Your task to perform on an android device: Open eBay Image 0: 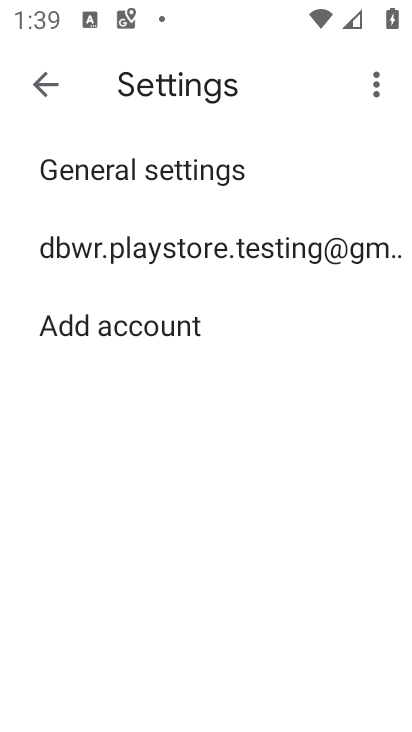
Step 0: press home button
Your task to perform on an android device: Open eBay Image 1: 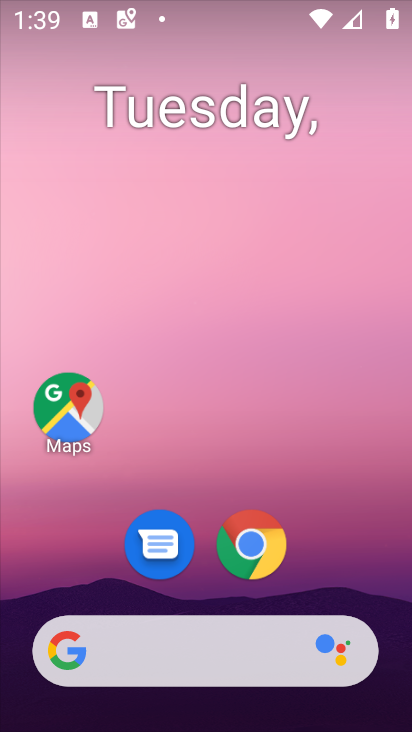
Step 1: click (256, 546)
Your task to perform on an android device: Open eBay Image 2: 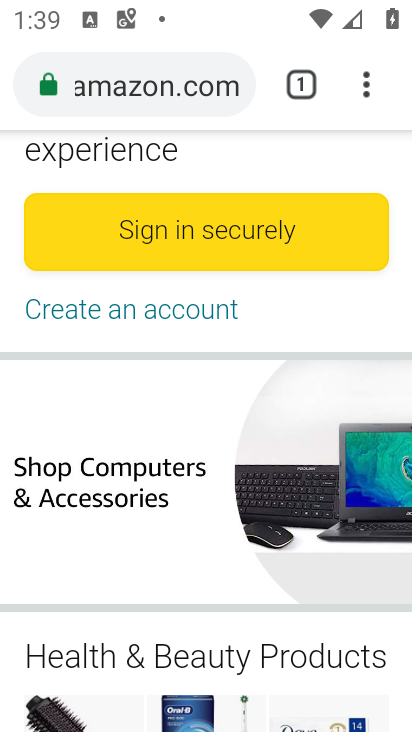
Step 2: click (242, 87)
Your task to perform on an android device: Open eBay Image 3: 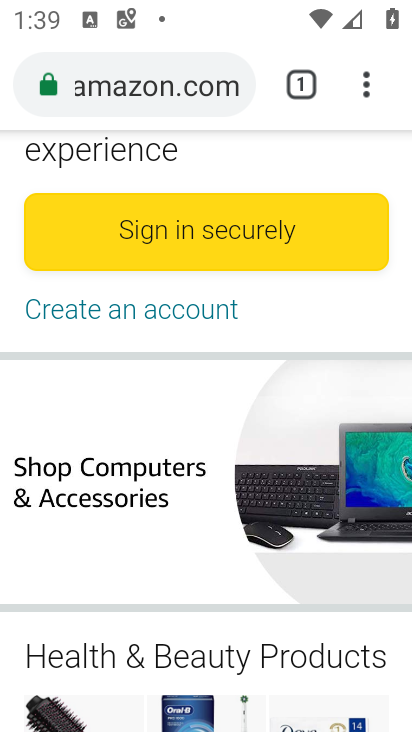
Step 3: click (173, 68)
Your task to perform on an android device: Open eBay Image 4: 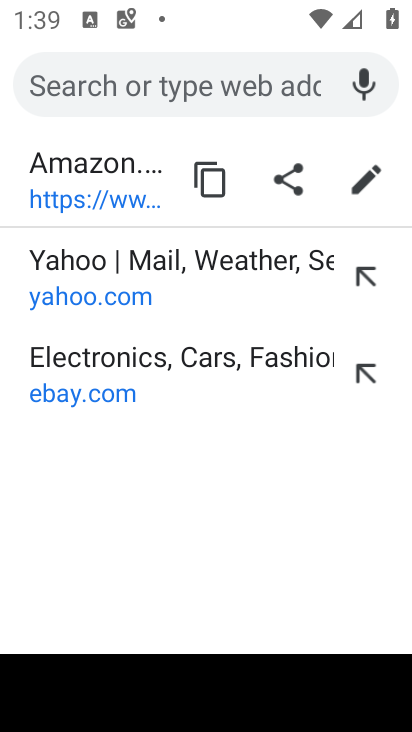
Step 4: type "ebay"
Your task to perform on an android device: Open eBay Image 5: 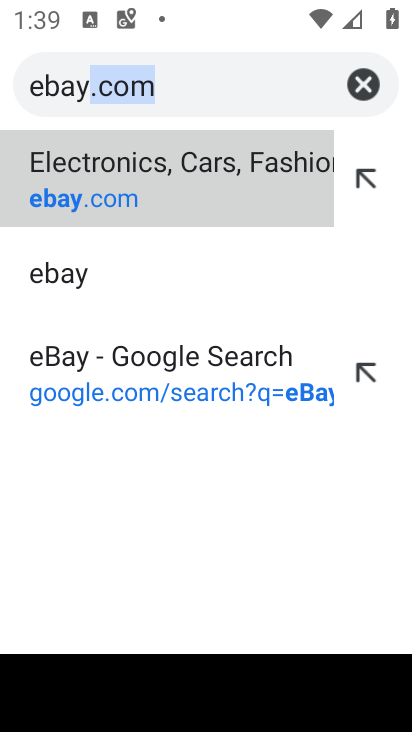
Step 5: click (104, 164)
Your task to perform on an android device: Open eBay Image 6: 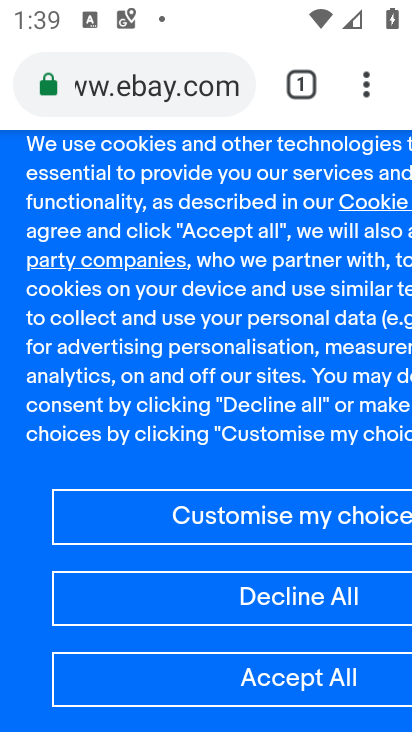
Step 6: click (270, 680)
Your task to perform on an android device: Open eBay Image 7: 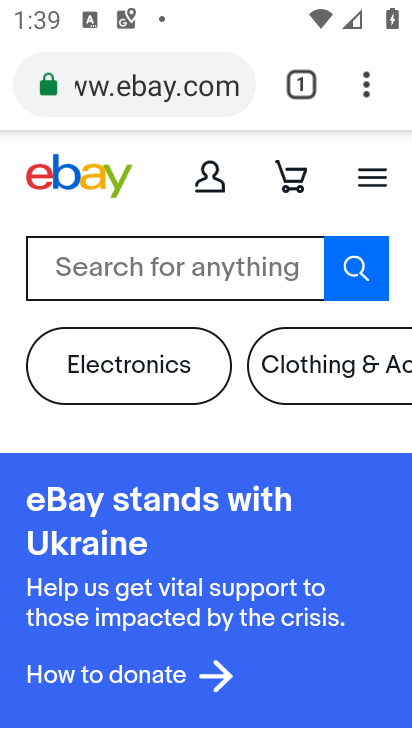
Step 7: task complete